Your task to perform on an android device: Open CNN.com Image 0: 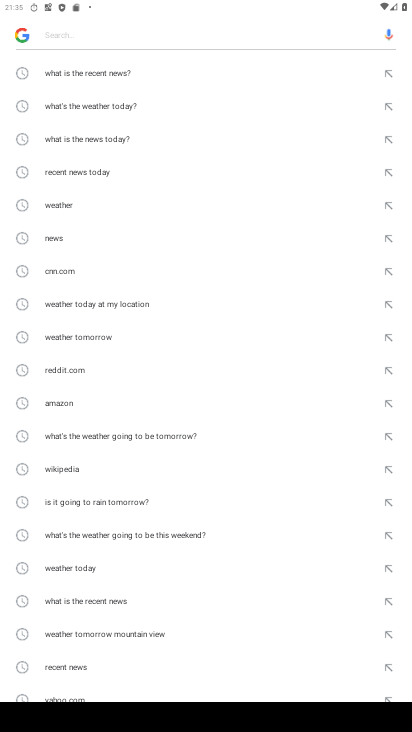
Step 0: press home button
Your task to perform on an android device: Open CNN.com Image 1: 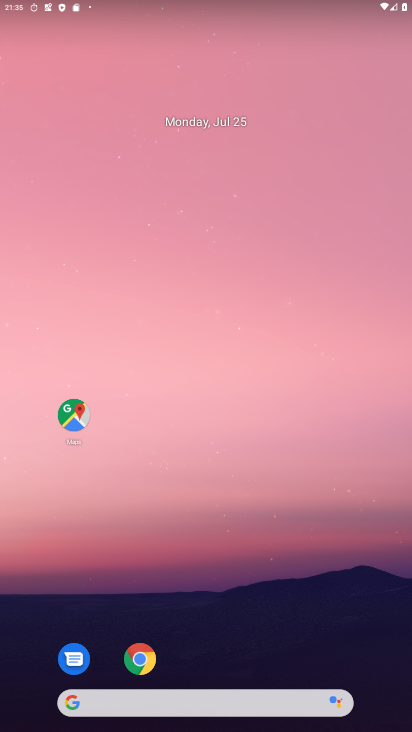
Step 1: click (140, 661)
Your task to perform on an android device: Open CNN.com Image 2: 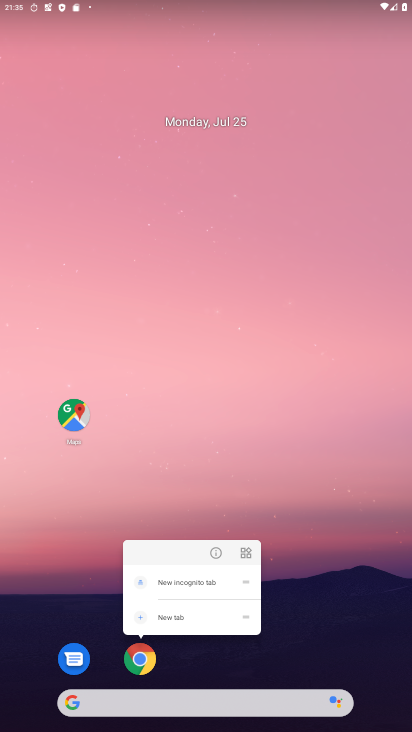
Step 2: click (144, 658)
Your task to perform on an android device: Open CNN.com Image 3: 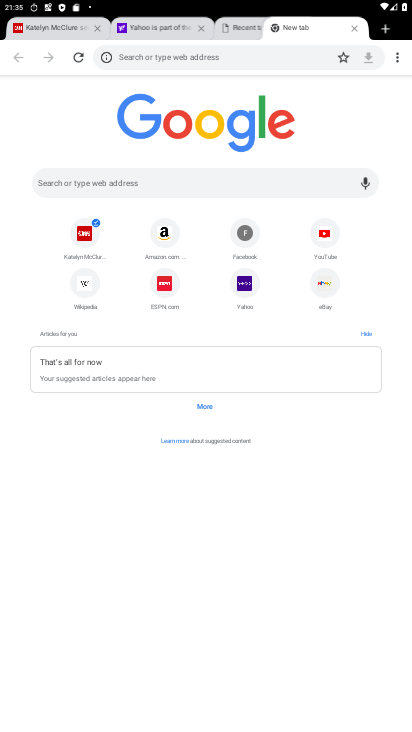
Step 3: click (167, 62)
Your task to perform on an android device: Open CNN.com Image 4: 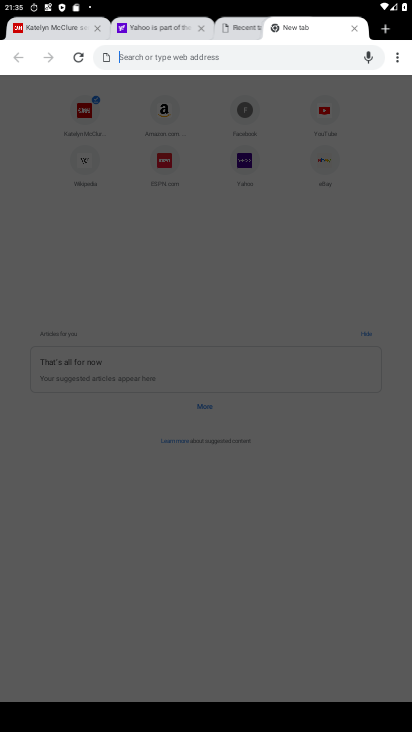
Step 4: type "CNN.com"
Your task to perform on an android device: Open CNN.com Image 5: 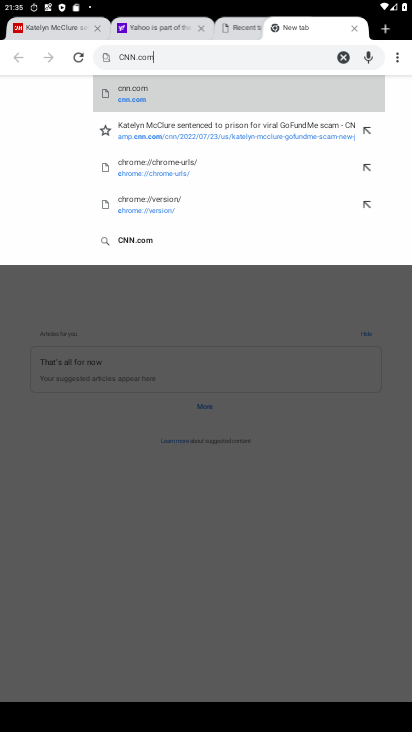
Step 5: type ""
Your task to perform on an android device: Open CNN.com Image 6: 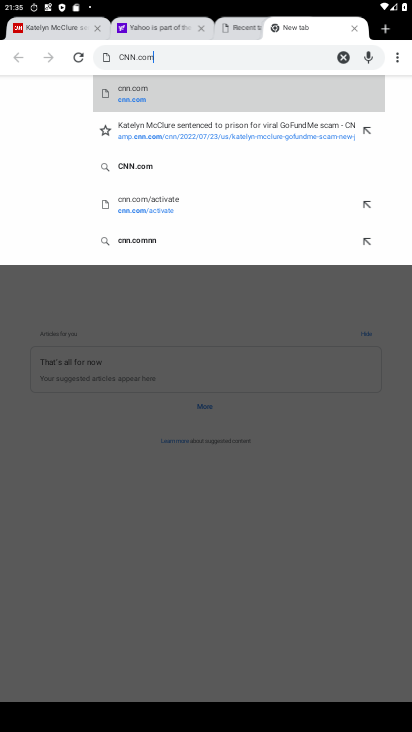
Step 6: click (199, 101)
Your task to perform on an android device: Open CNN.com Image 7: 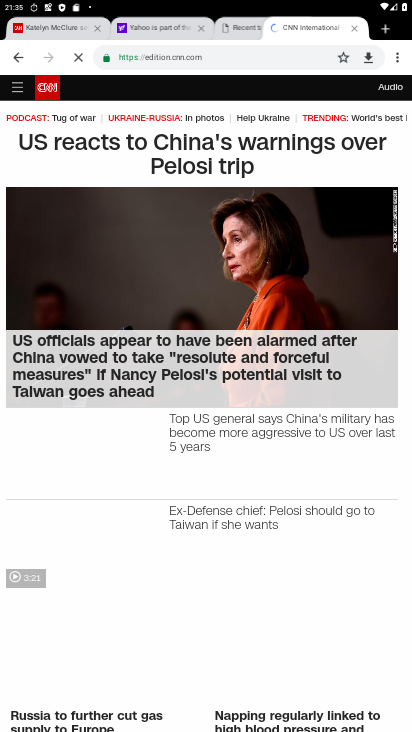
Step 7: task complete